Your task to perform on an android device: snooze an email in the gmail app Image 0: 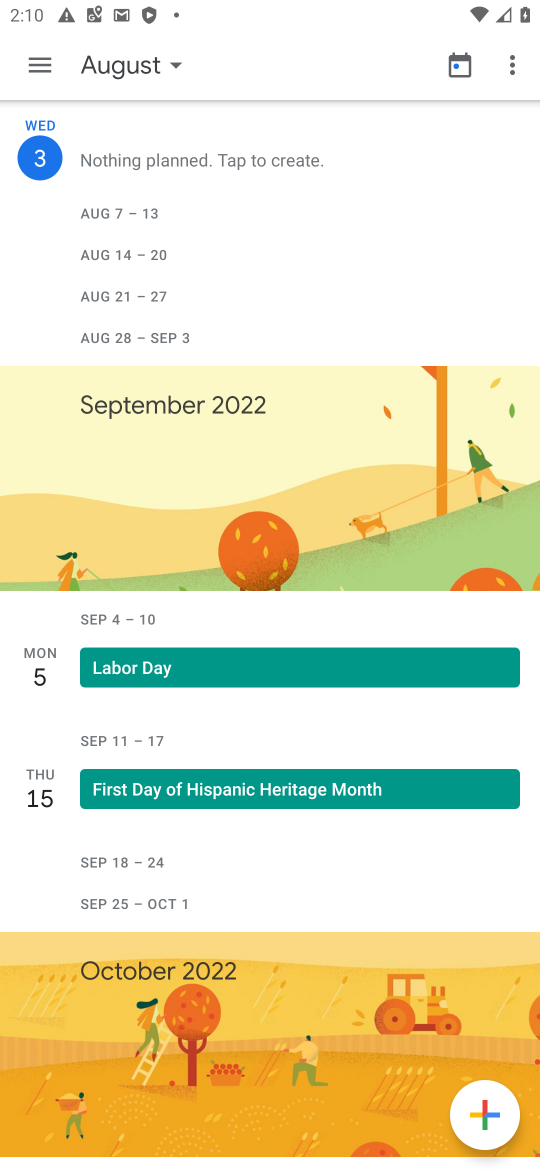
Step 0: press home button
Your task to perform on an android device: snooze an email in the gmail app Image 1: 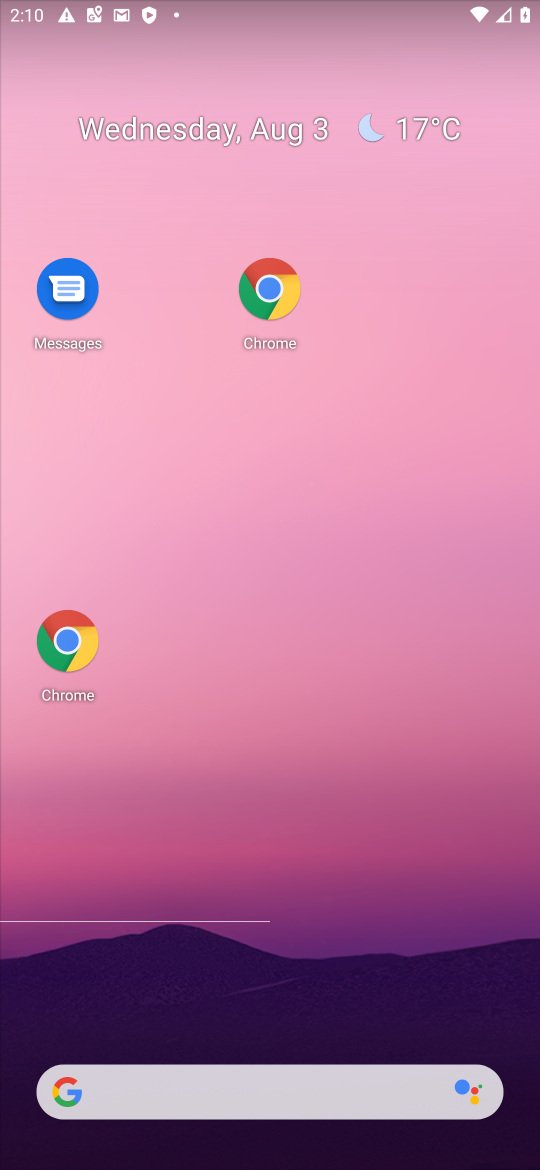
Step 1: drag from (430, 905) to (398, 251)
Your task to perform on an android device: snooze an email in the gmail app Image 2: 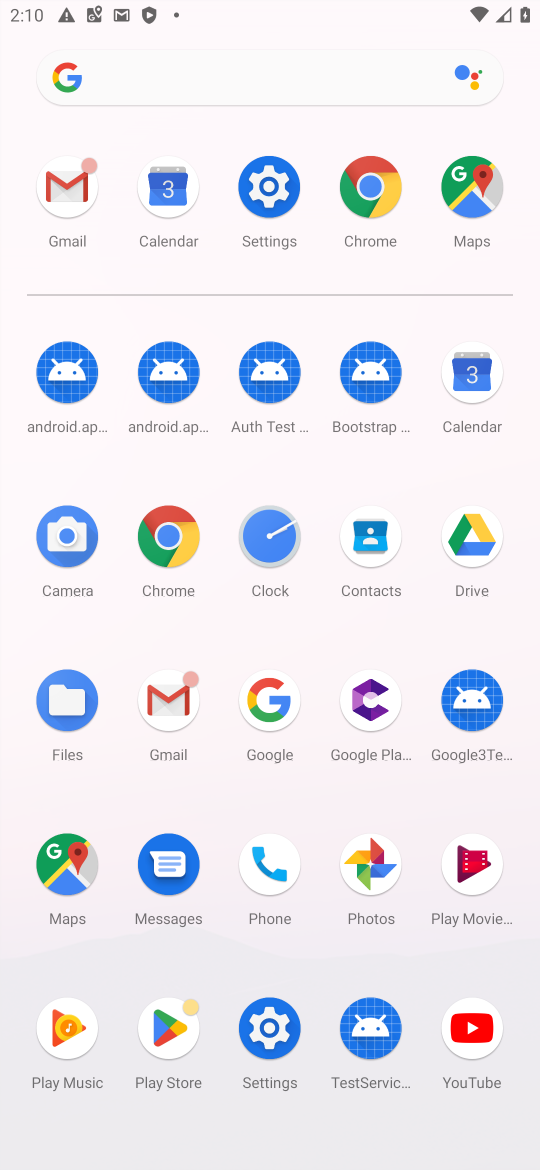
Step 2: click (178, 524)
Your task to perform on an android device: snooze an email in the gmail app Image 3: 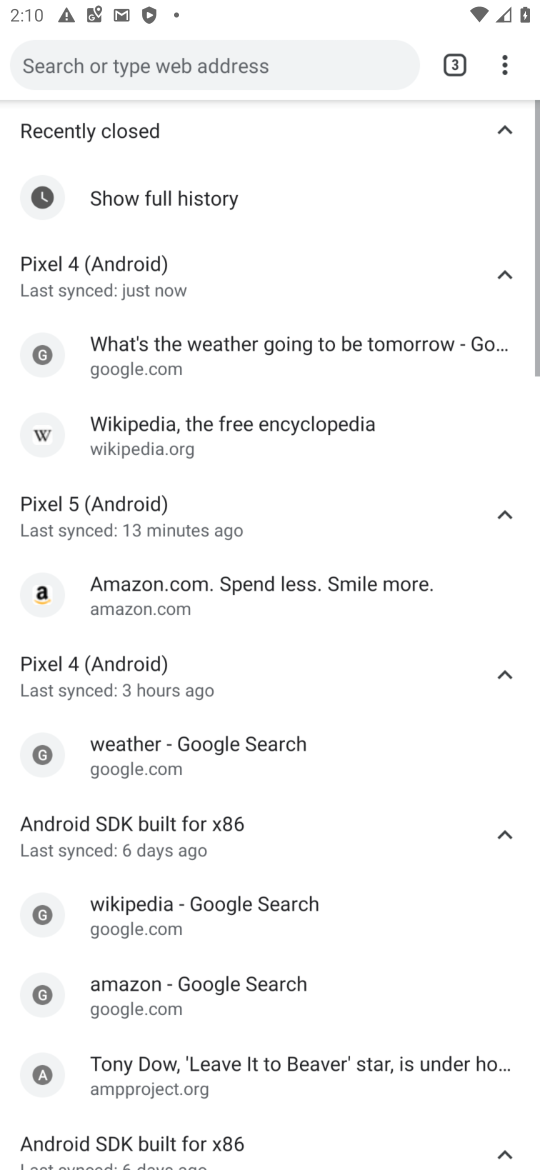
Step 3: click (60, 207)
Your task to perform on an android device: snooze an email in the gmail app Image 4: 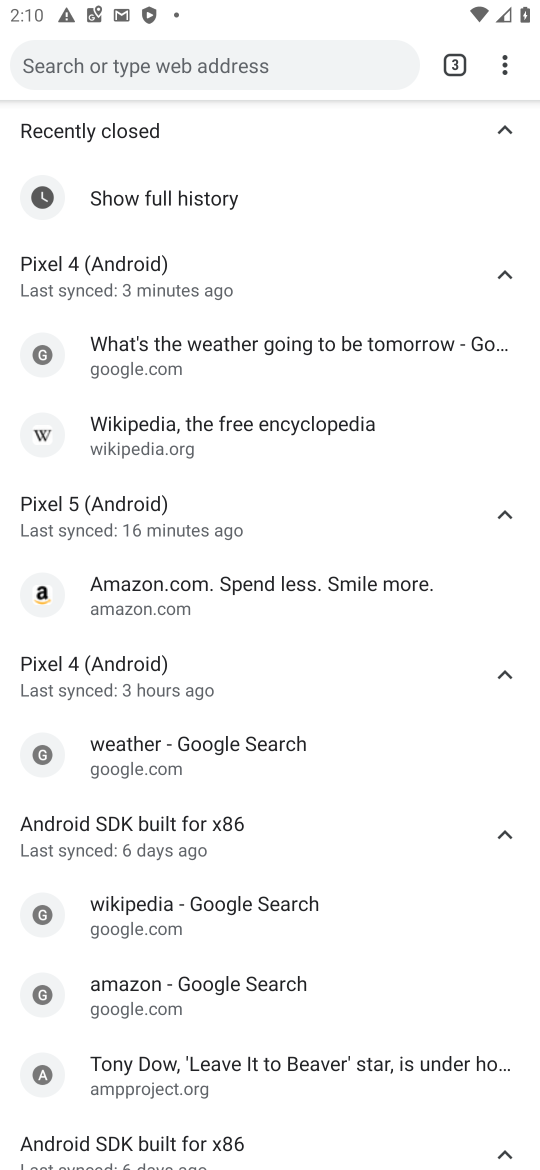
Step 4: press back button
Your task to perform on an android device: snooze an email in the gmail app Image 5: 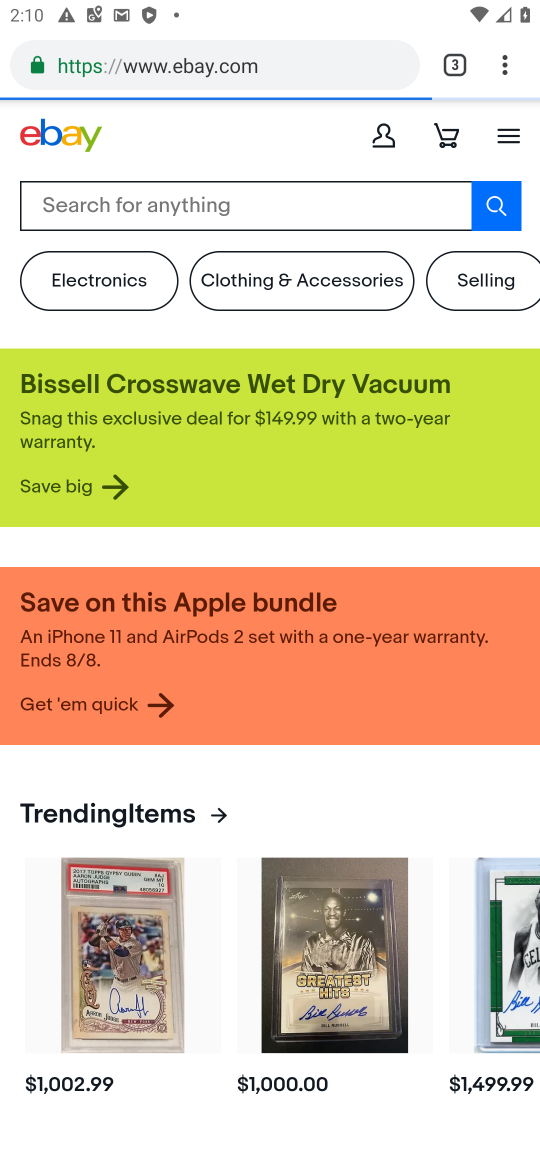
Step 5: press back button
Your task to perform on an android device: snooze an email in the gmail app Image 6: 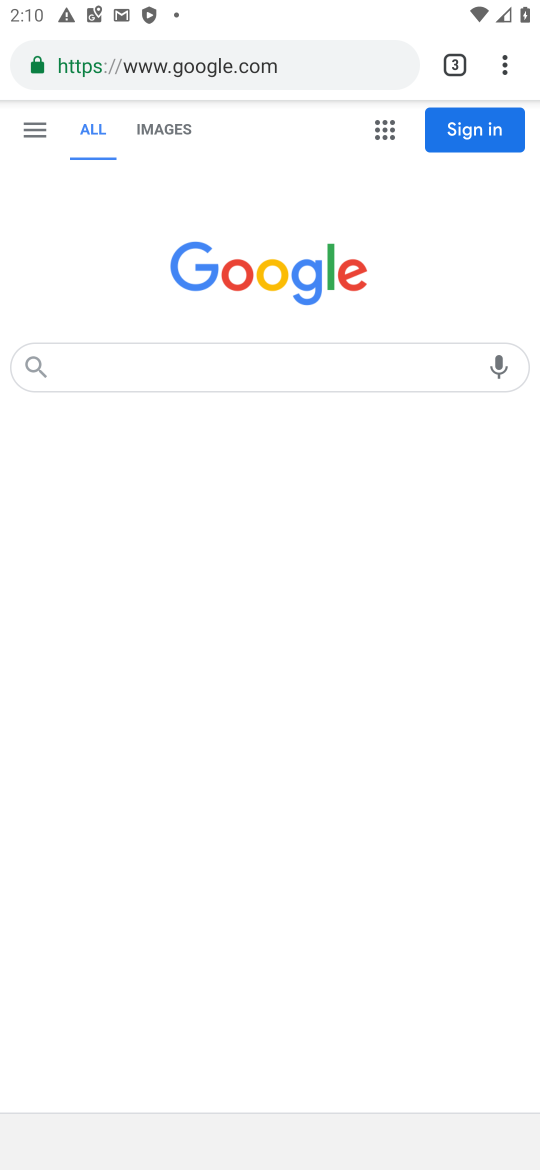
Step 6: press back button
Your task to perform on an android device: snooze an email in the gmail app Image 7: 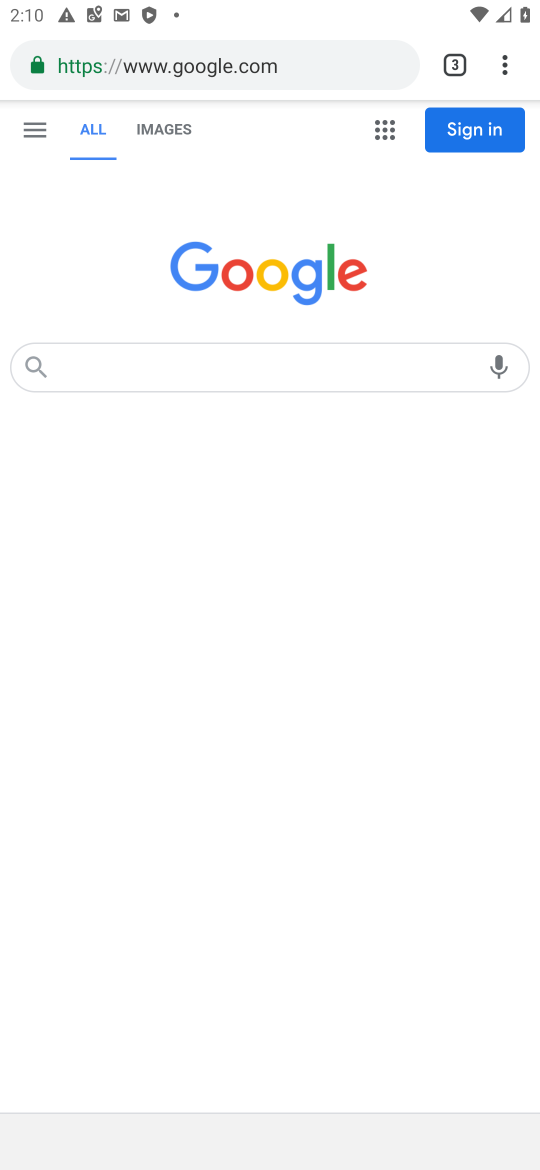
Step 7: press back button
Your task to perform on an android device: snooze an email in the gmail app Image 8: 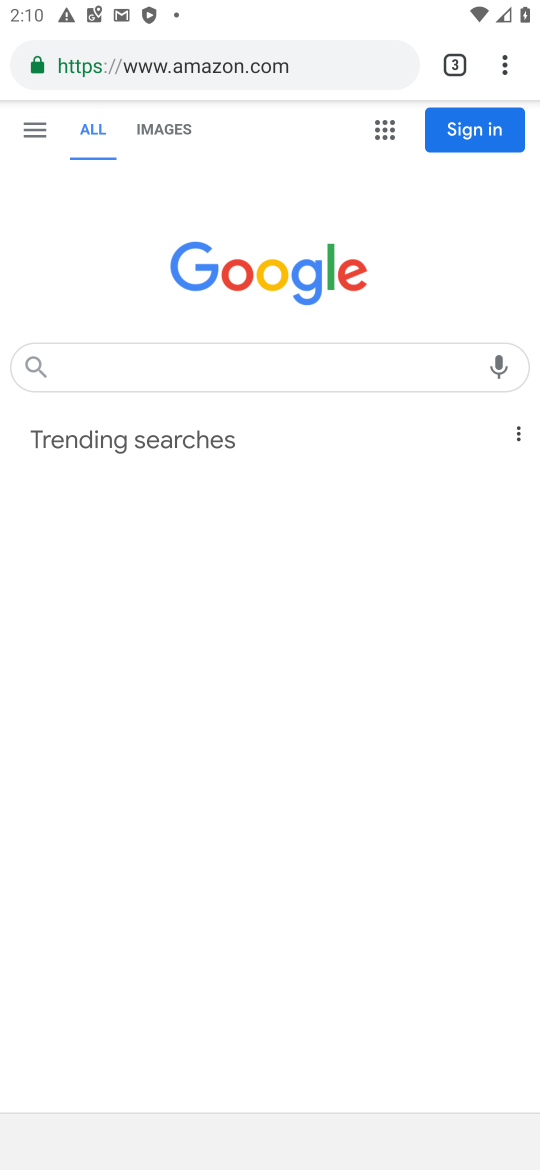
Step 8: press back button
Your task to perform on an android device: snooze an email in the gmail app Image 9: 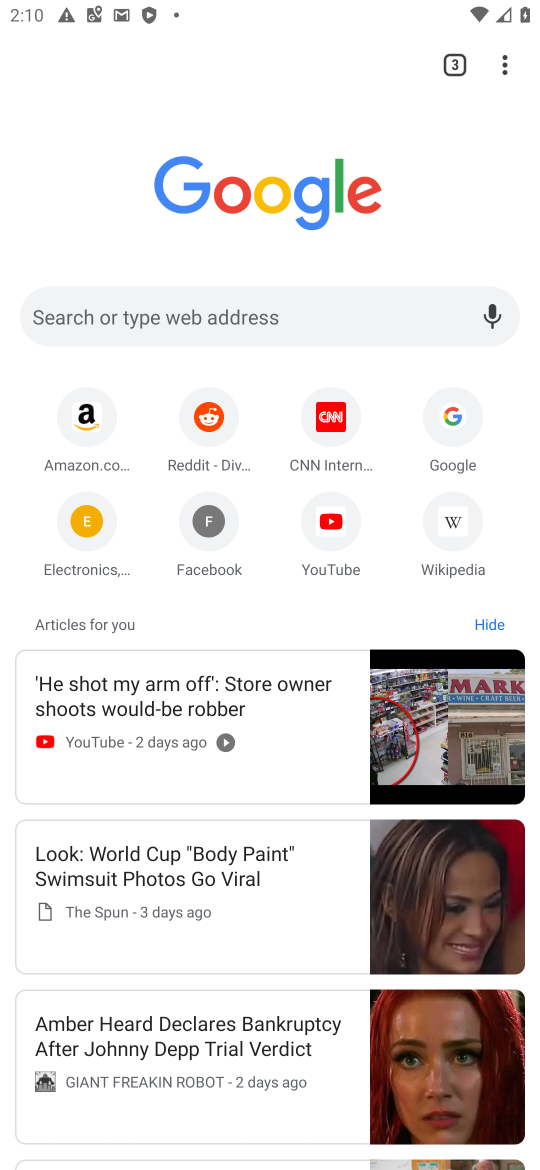
Step 9: press back button
Your task to perform on an android device: snooze an email in the gmail app Image 10: 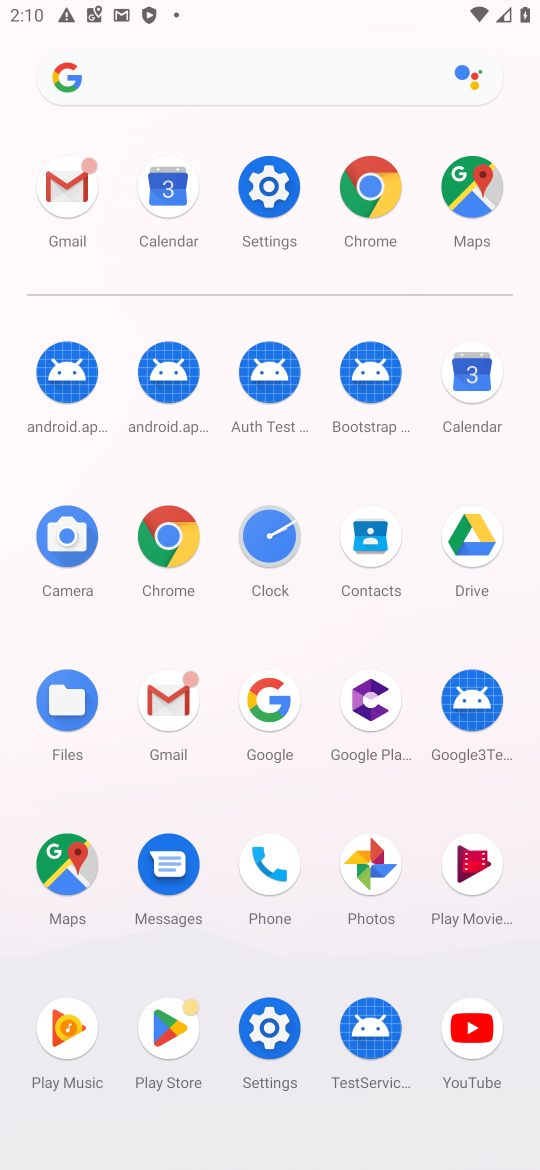
Step 10: press back button
Your task to perform on an android device: snooze an email in the gmail app Image 11: 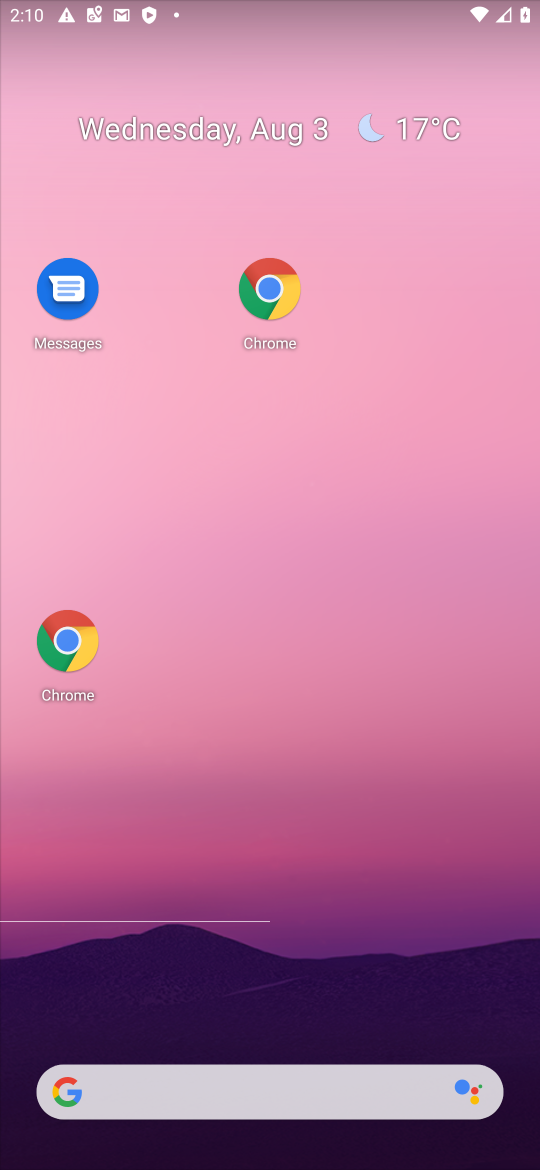
Step 11: drag from (322, 877) to (333, 25)
Your task to perform on an android device: snooze an email in the gmail app Image 12: 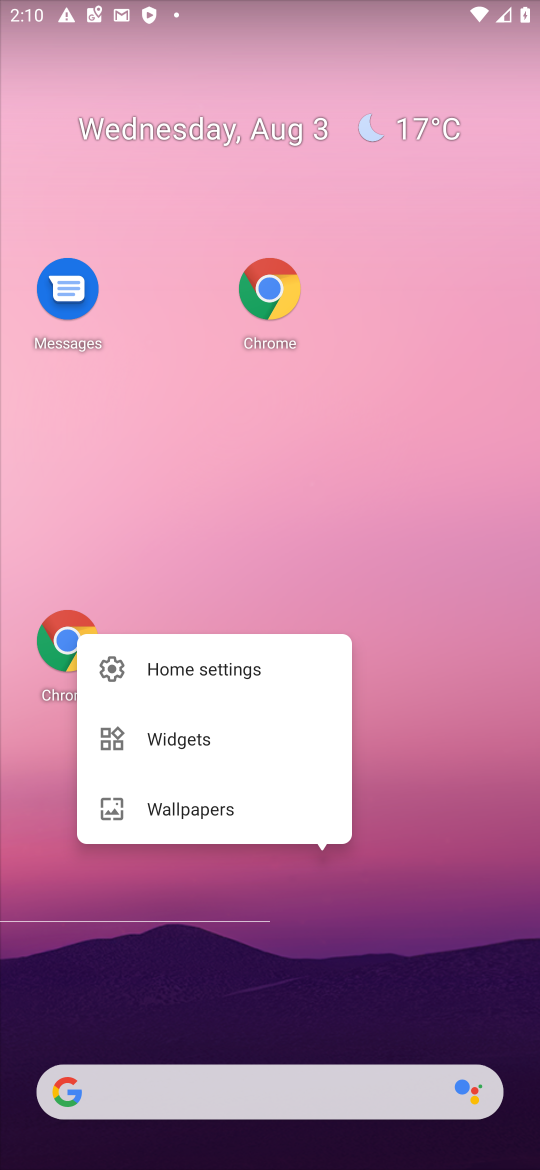
Step 12: click (461, 524)
Your task to perform on an android device: snooze an email in the gmail app Image 13: 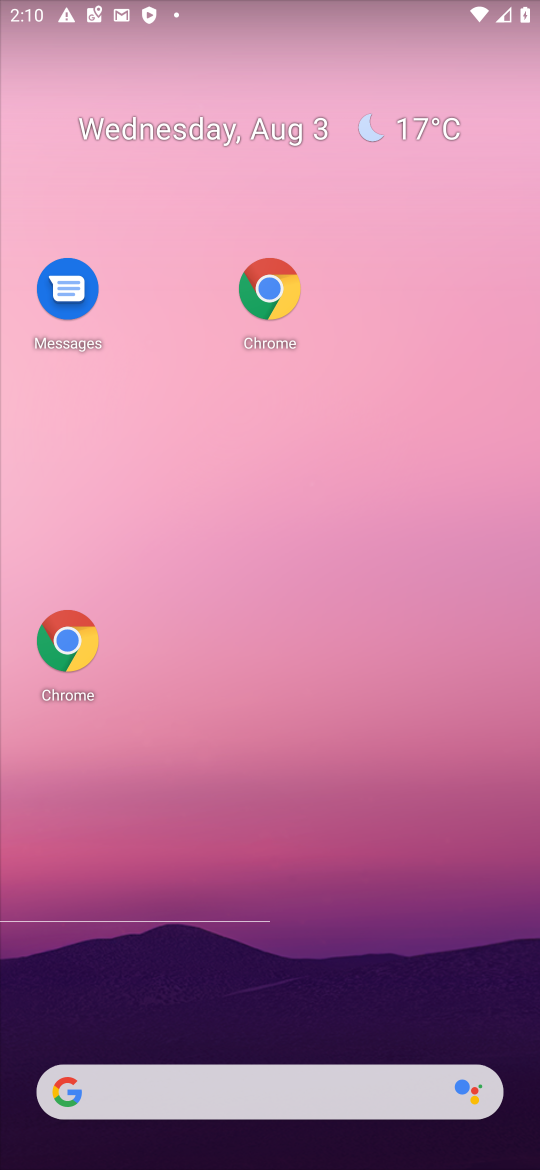
Step 13: drag from (412, 865) to (417, 25)
Your task to perform on an android device: snooze an email in the gmail app Image 14: 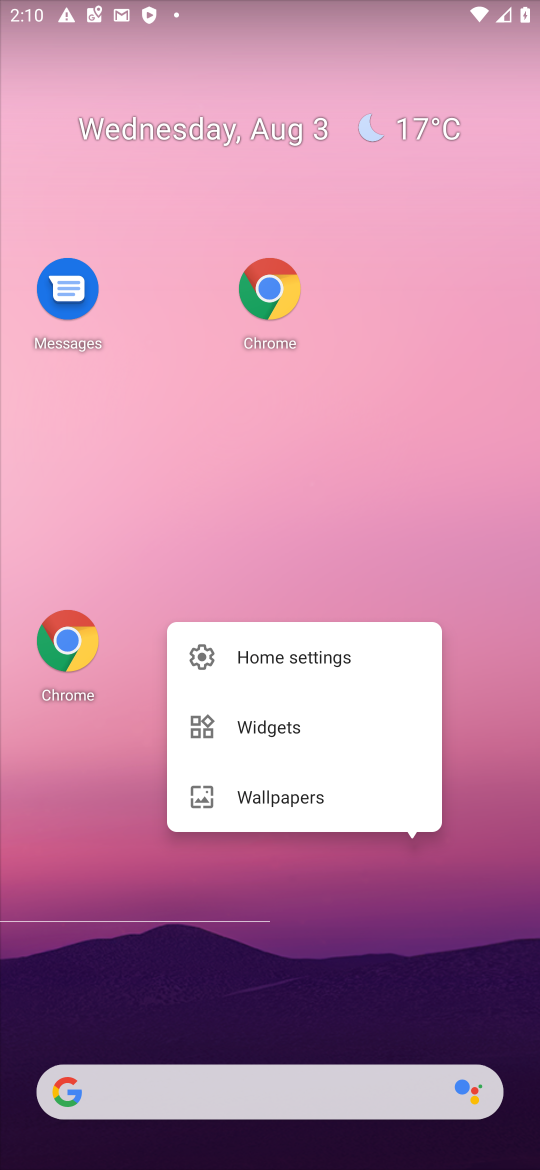
Step 14: click (441, 460)
Your task to perform on an android device: snooze an email in the gmail app Image 15: 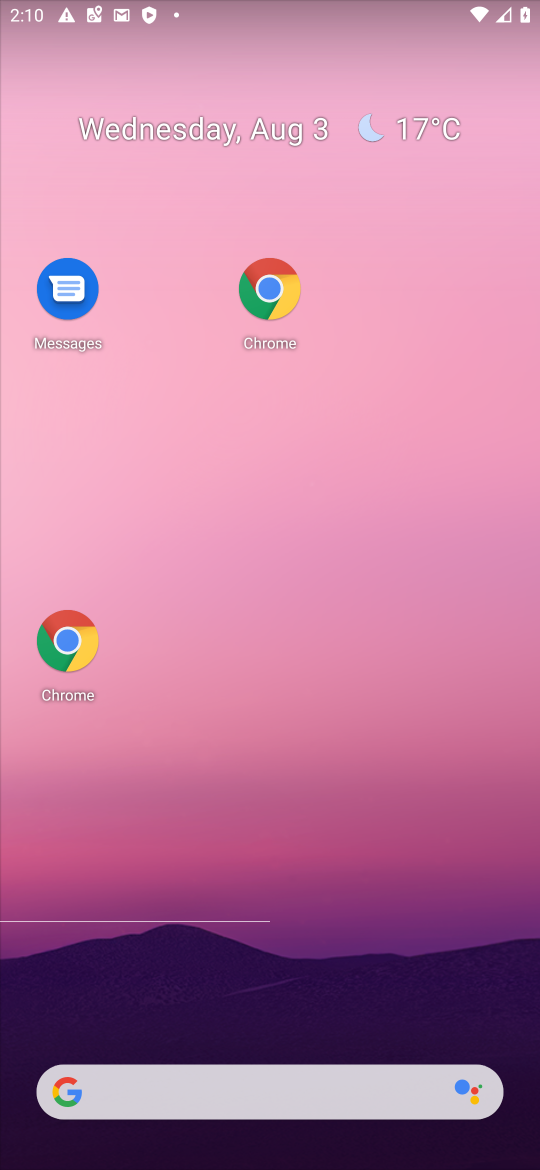
Step 15: drag from (427, 981) to (394, 172)
Your task to perform on an android device: snooze an email in the gmail app Image 16: 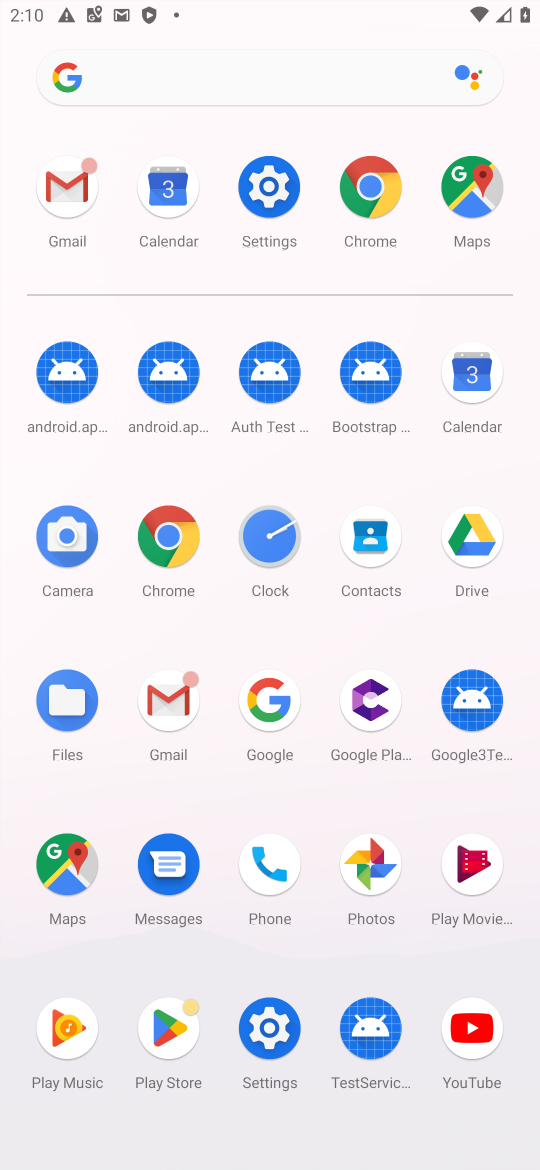
Step 16: click (76, 212)
Your task to perform on an android device: snooze an email in the gmail app Image 17: 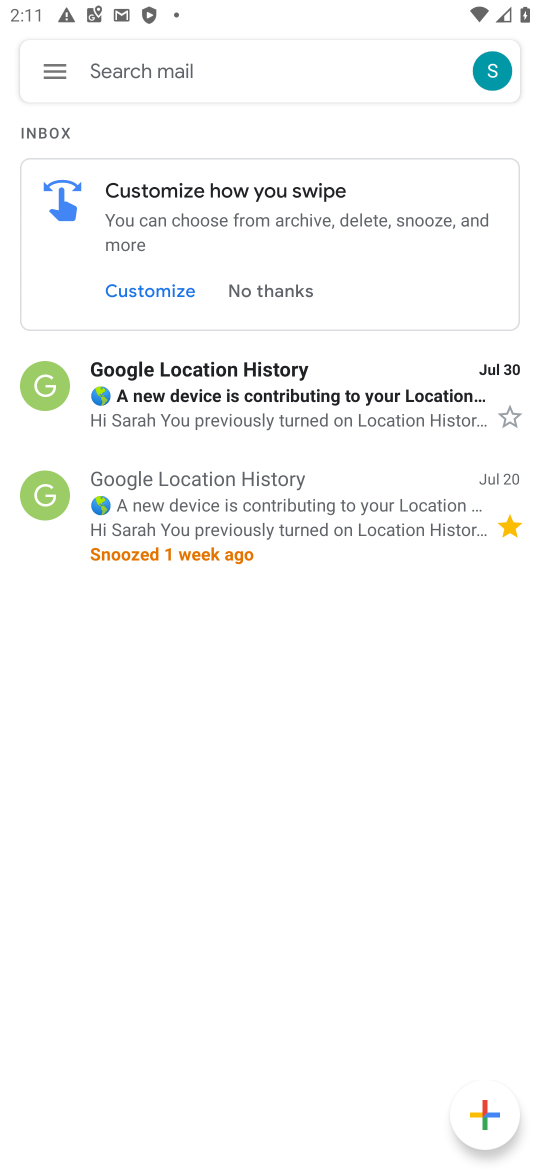
Step 17: task complete